Your task to perform on an android device: open app "Calculator" (install if not already installed) Image 0: 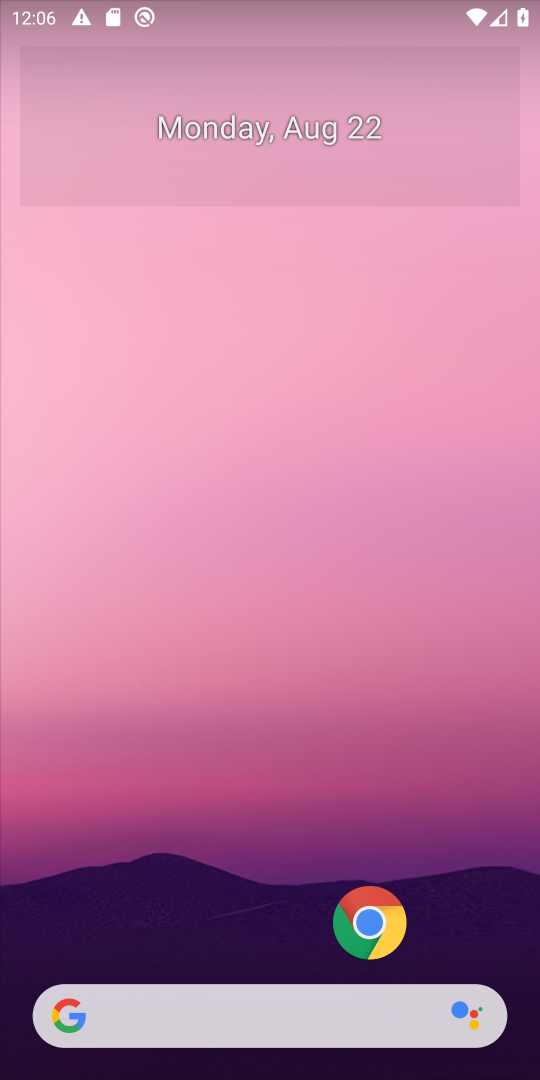
Step 0: drag from (251, 980) to (301, 234)
Your task to perform on an android device: open app "Calculator" (install if not already installed) Image 1: 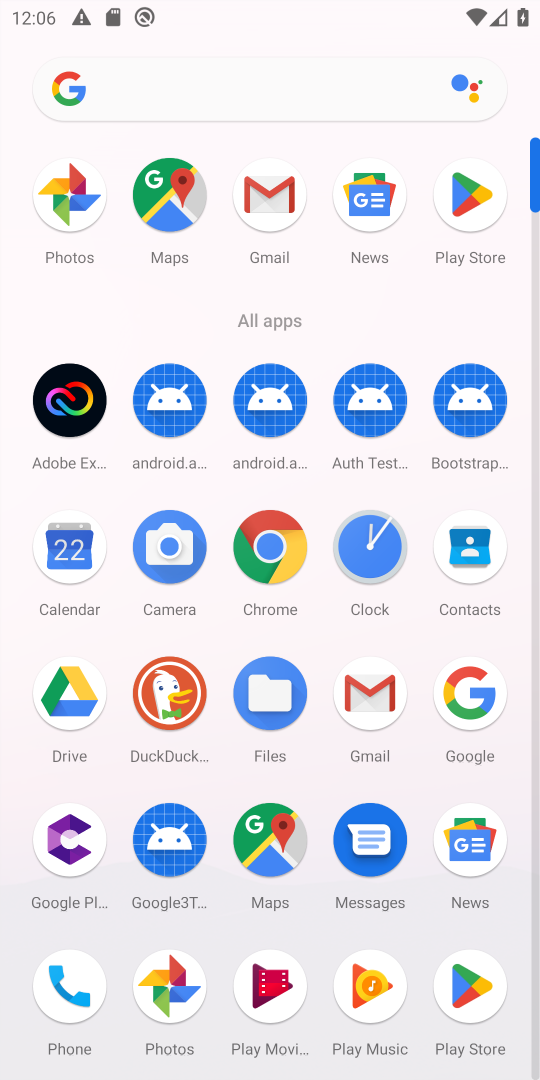
Step 1: drag from (311, 1043) to (341, 356)
Your task to perform on an android device: open app "Calculator" (install if not already installed) Image 2: 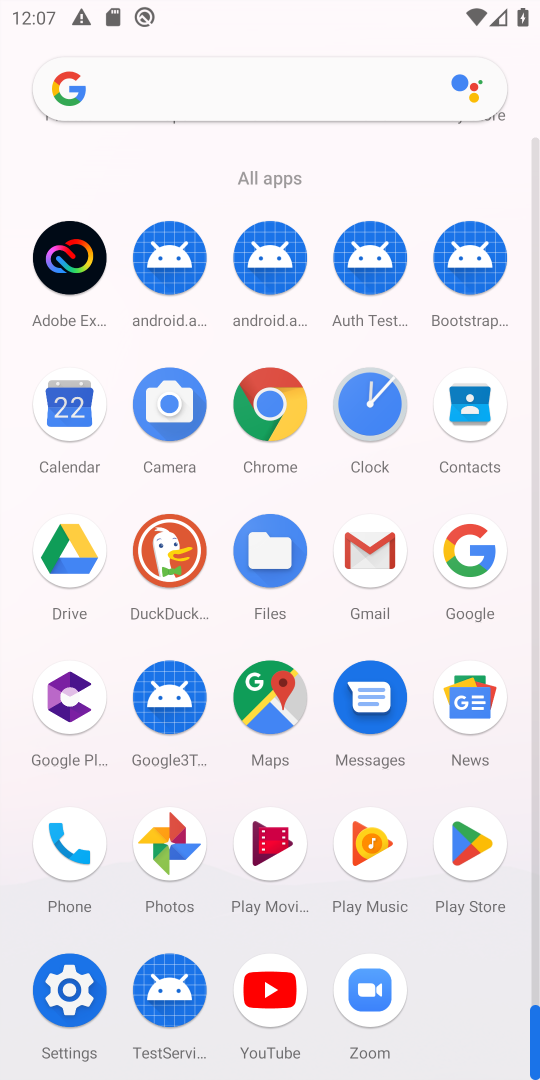
Step 2: click (480, 846)
Your task to perform on an android device: open app "Calculator" (install if not already installed) Image 3: 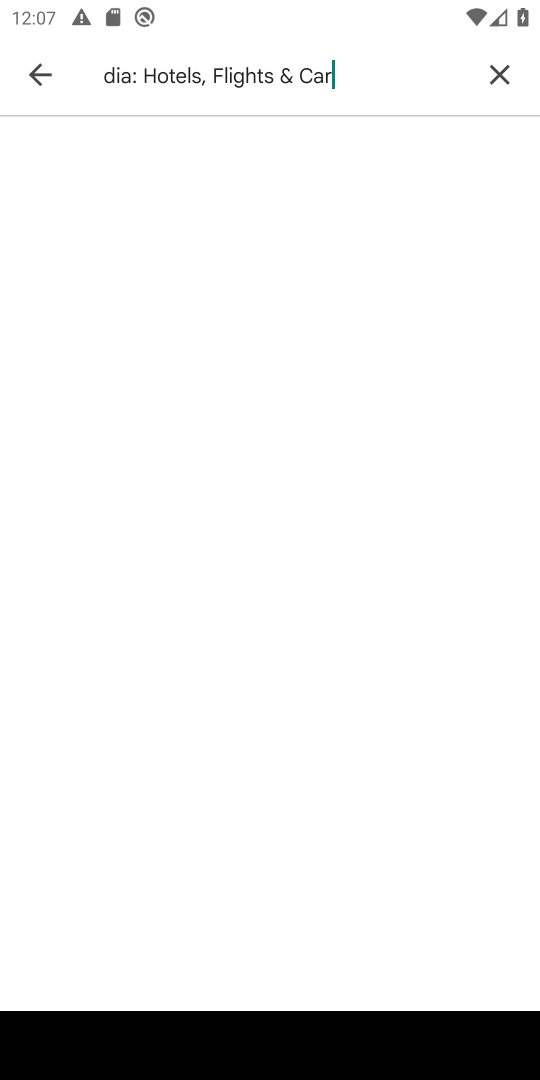
Step 3: drag from (502, 73) to (539, 206)
Your task to perform on an android device: open app "Calculator" (install if not already installed) Image 4: 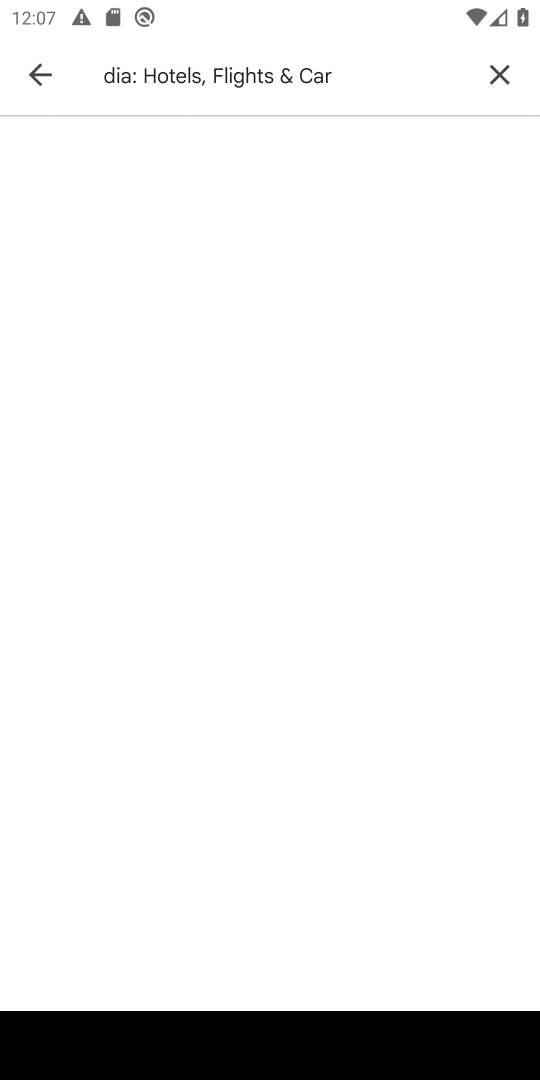
Step 4: click (493, 82)
Your task to perform on an android device: open app "Calculator" (install if not already installed) Image 5: 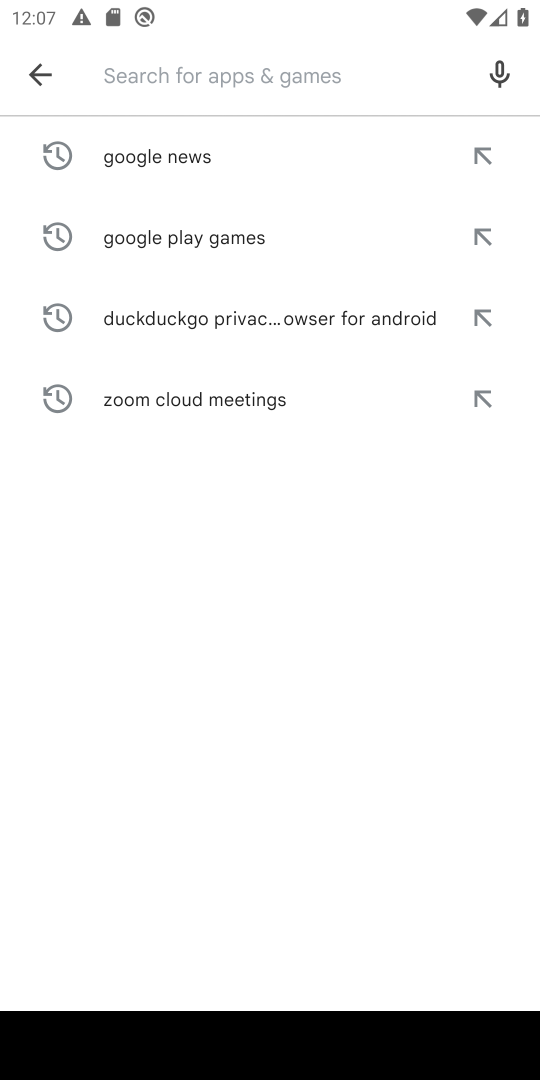
Step 5: type "Calculator"
Your task to perform on an android device: open app "Calculator" (install if not already installed) Image 6: 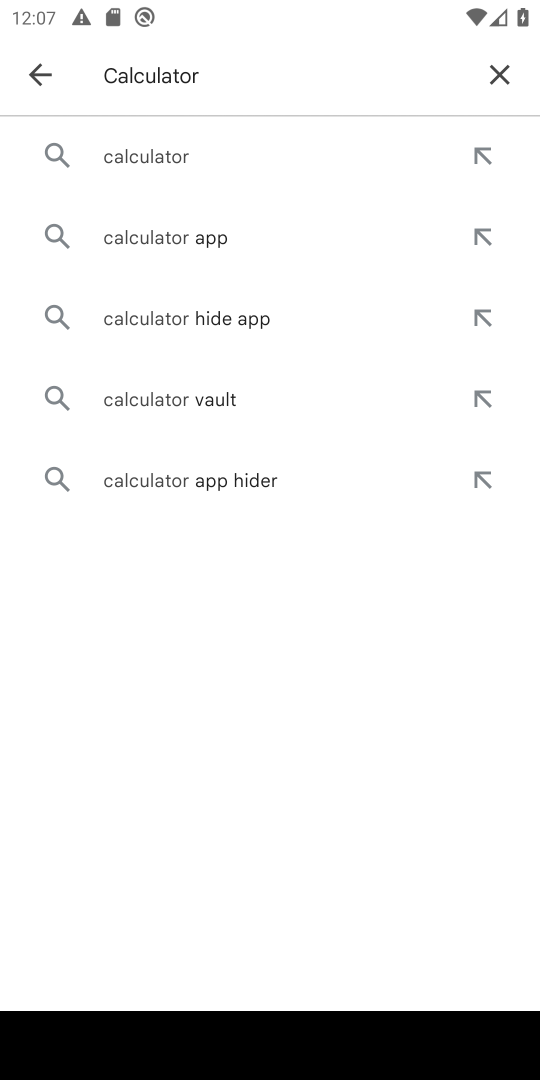
Step 6: click (135, 165)
Your task to perform on an android device: open app "Calculator" (install if not already installed) Image 7: 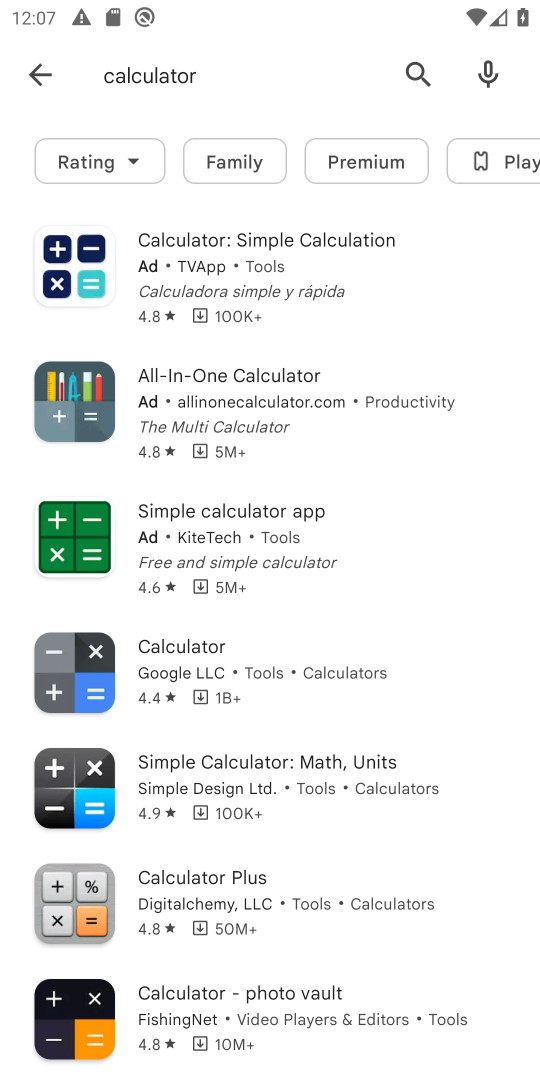
Step 7: click (190, 675)
Your task to perform on an android device: open app "Calculator" (install if not already installed) Image 8: 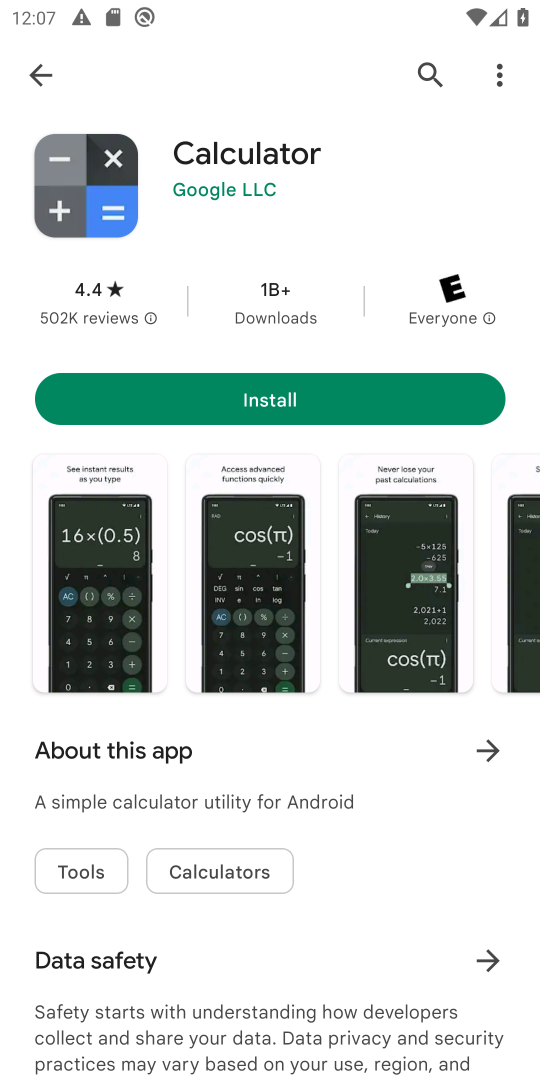
Step 8: click (281, 401)
Your task to perform on an android device: open app "Calculator" (install if not already installed) Image 9: 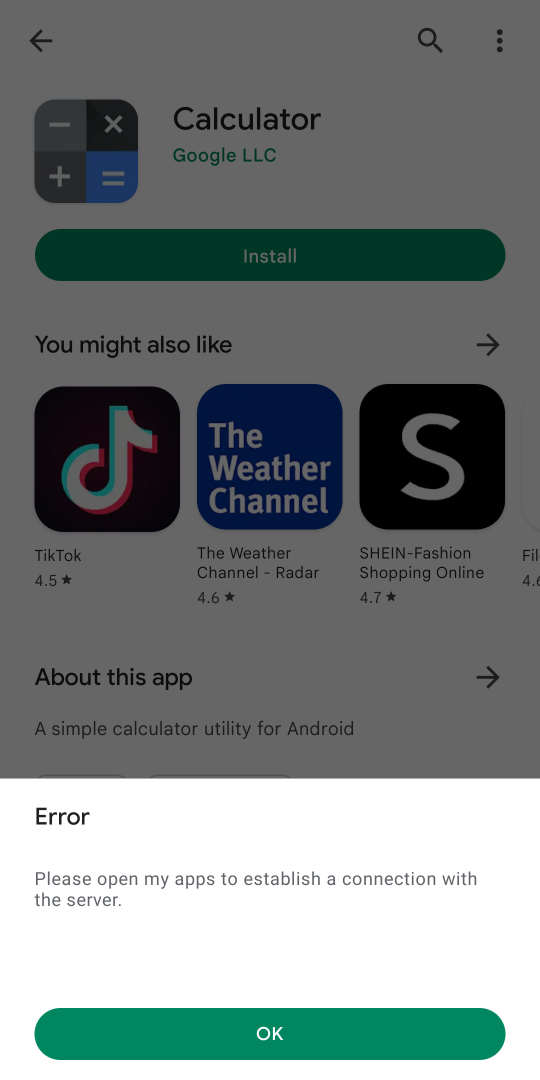
Step 9: click (255, 1045)
Your task to perform on an android device: open app "Calculator" (install if not already installed) Image 10: 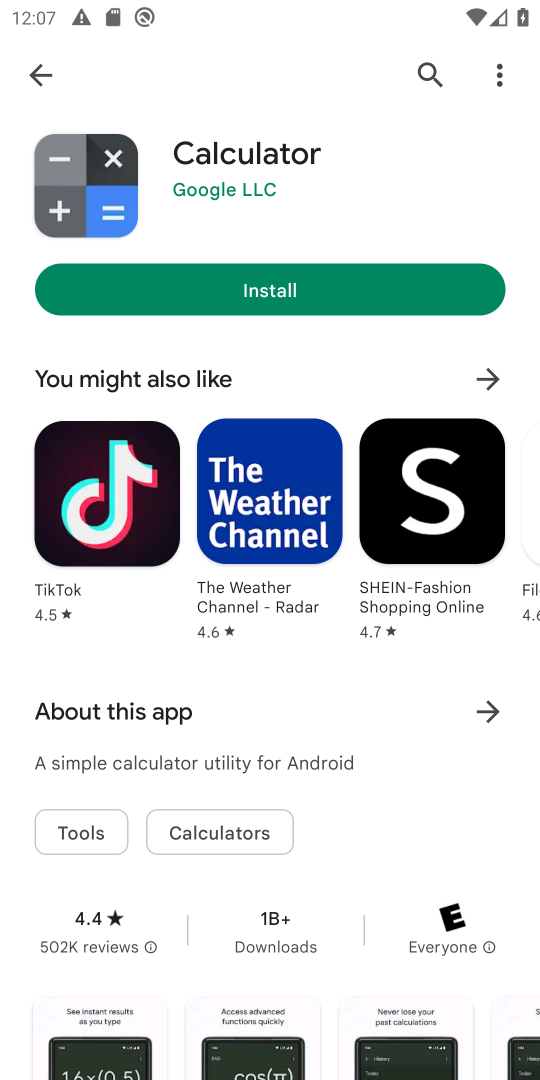
Step 10: task complete